Your task to perform on an android device: Go to Wikipedia Image 0: 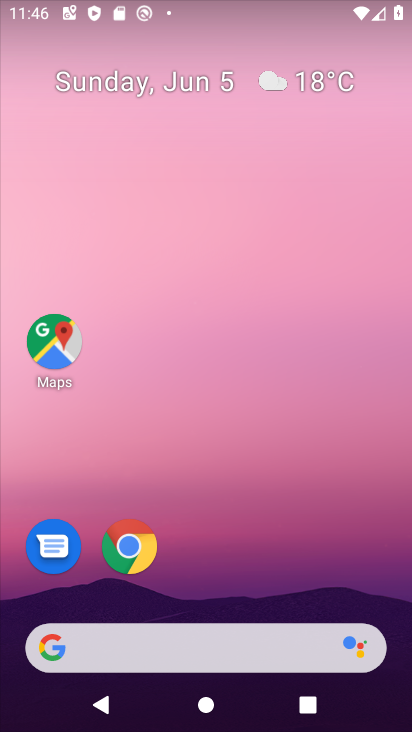
Step 0: click (130, 658)
Your task to perform on an android device: Go to Wikipedia Image 1: 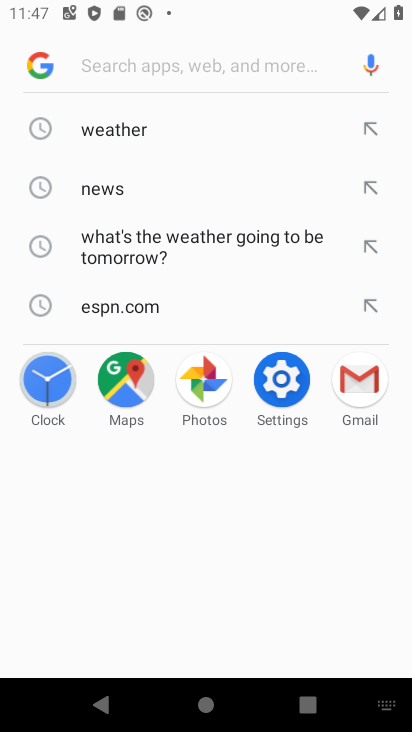
Step 1: type " Wikipedia"
Your task to perform on an android device: Go to Wikipedia Image 2: 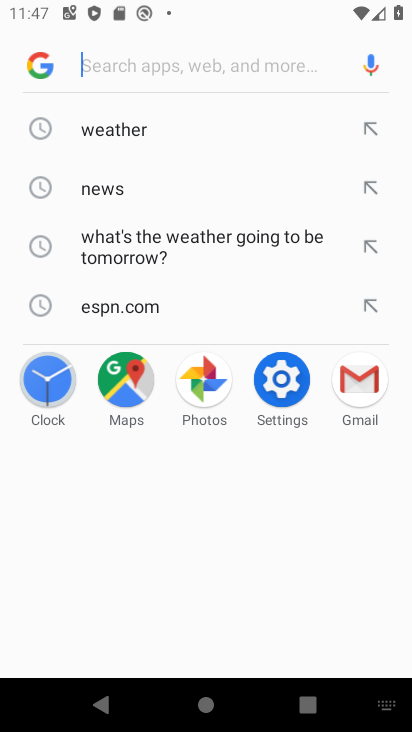
Step 2: click (135, 65)
Your task to perform on an android device: Go to Wikipedia Image 3: 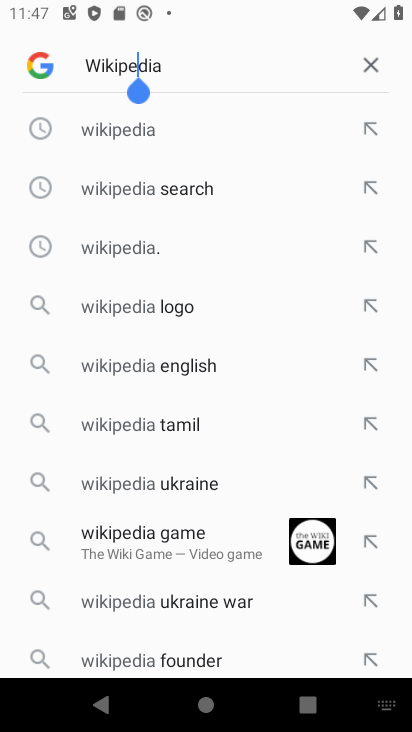
Step 3: click (111, 126)
Your task to perform on an android device: Go to Wikipedia Image 4: 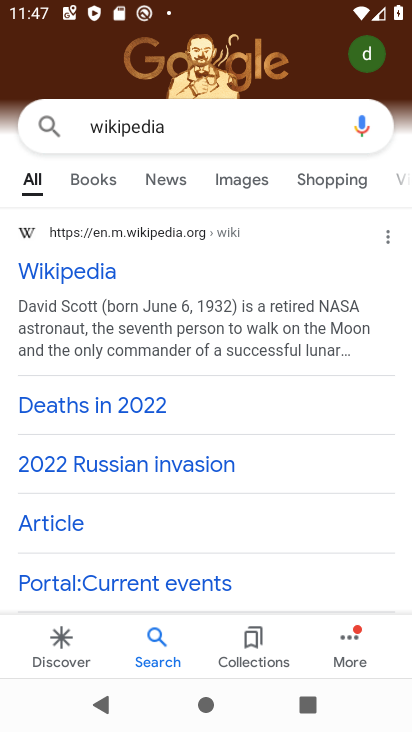
Step 4: click (58, 271)
Your task to perform on an android device: Go to Wikipedia Image 5: 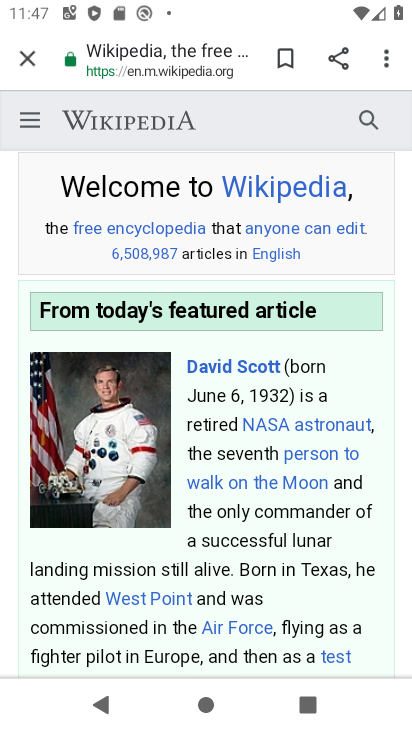
Step 5: task complete